Your task to perform on an android device: Go to ESPN.com Image 0: 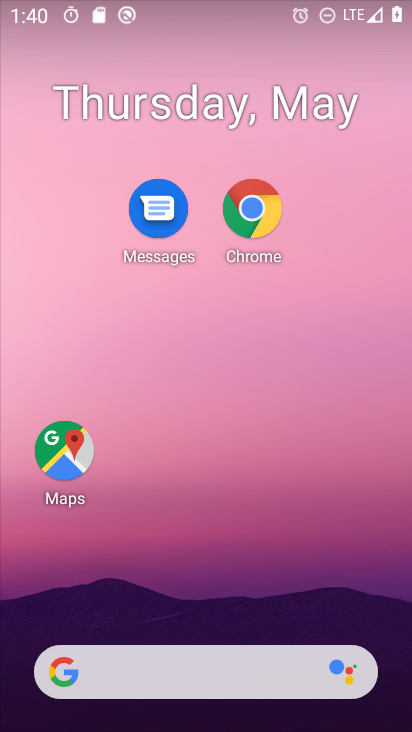
Step 0: click (256, 257)
Your task to perform on an android device: Go to ESPN.com Image 1: 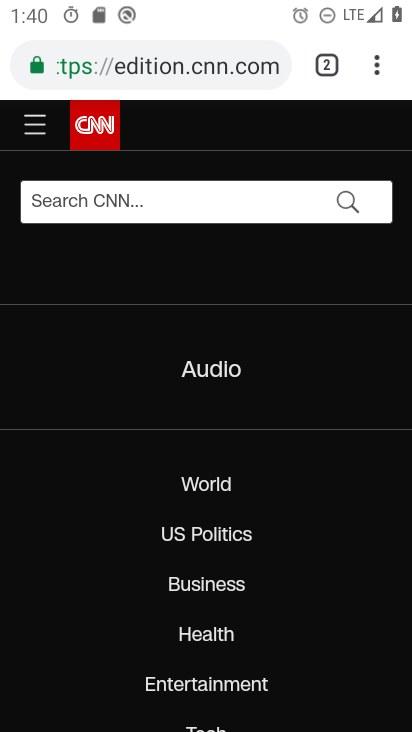
Step 1: click (165, 74)
Your task to perform on an android device: Go to ESPN.com Image 2: 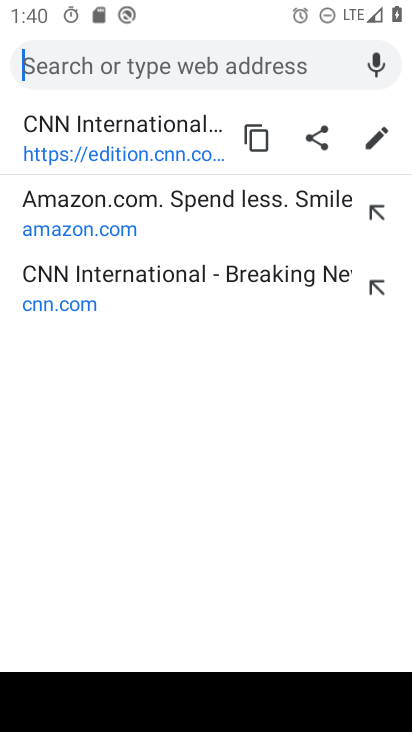
Step 2: press back button
Your task to perform on an android device: Go to ESPN.com Image 3: 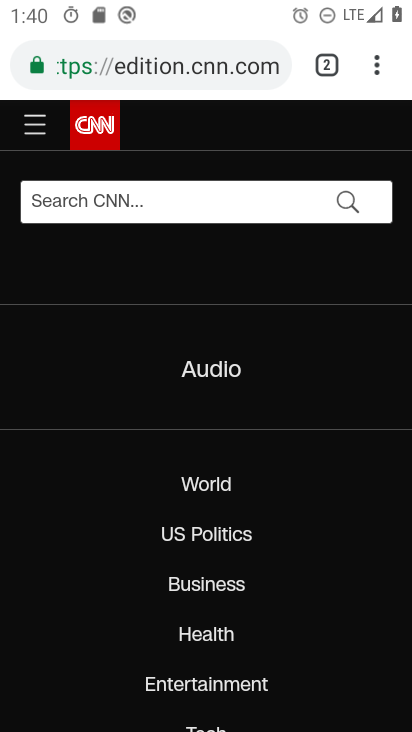
Step 3: press back button
Your task to perform on an android device: Go to ESPN.com Image 4: 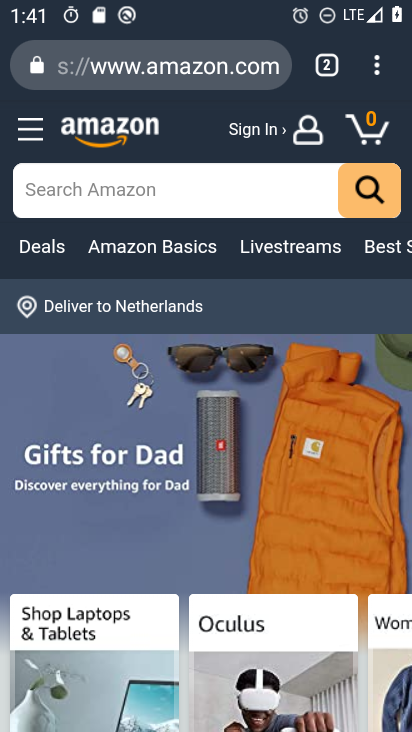
Step 4: press back button
Your task to perform on an android device: Go to ESPN.com Image 5: 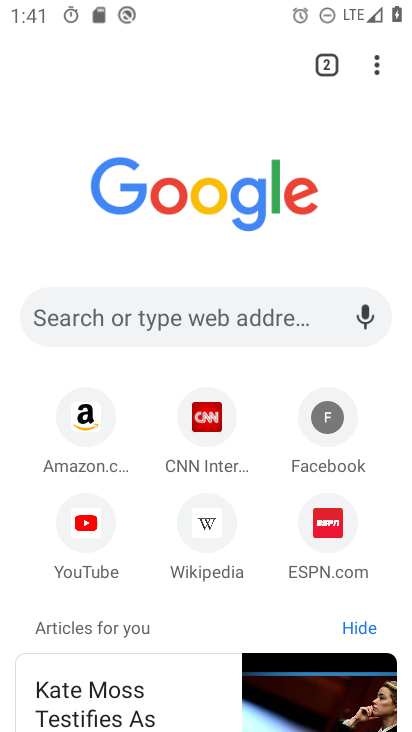
Step 5: click (322, 545)
Your task to perform on an android device: Go to ESPN.com Image 6: 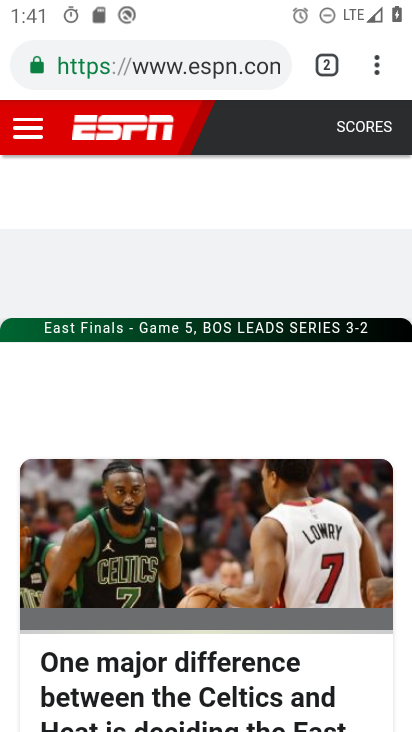
Step 6: task complete